Your task to perform on an android device: turn notification dots off Image 0: 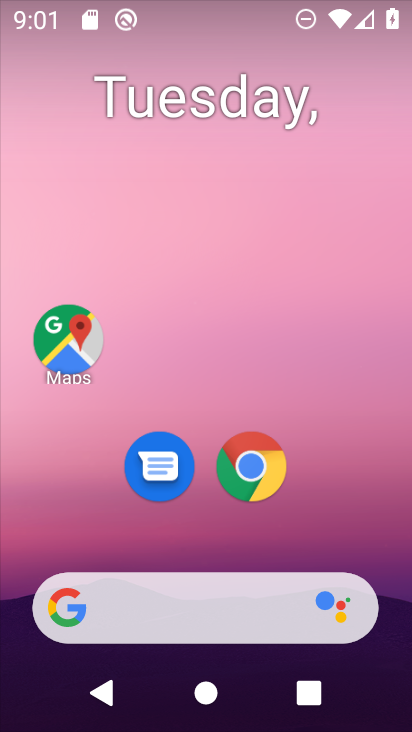
Step 0: drag from (198, 550) to (247, 61)
Your task to perform on an android device: turn notification dots off Image 1: 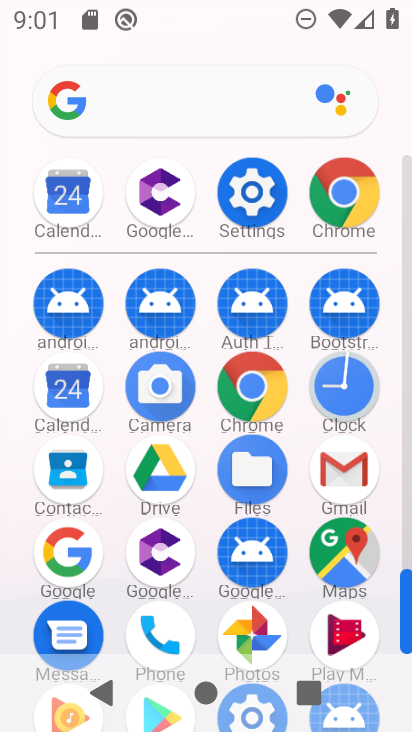
Step 1: click (257, 194)
Your task to perform on an android device: turn notification dots off Image 2: 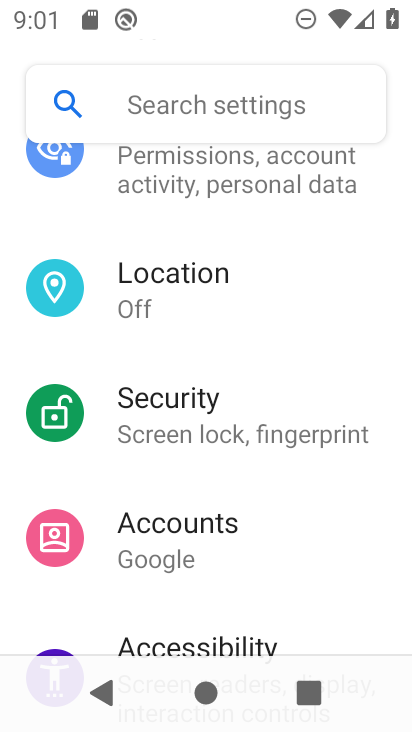
Step 2: drag from (238, 231) to (213, 681)
Your task to perform on an android device: turn notification dots off Image 3: 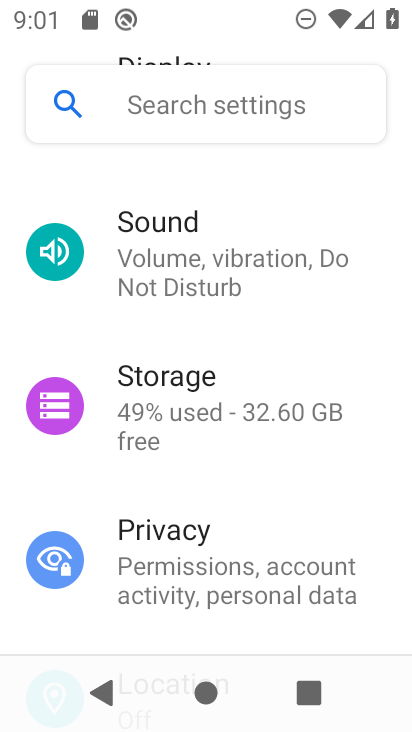
Step 3: drag from (258, 279) to (222, 575)
Your task to perform on an android device: turn notification dots off Image 4: 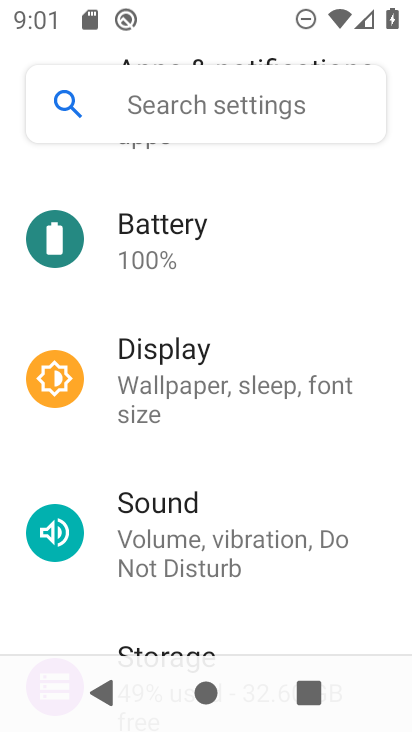
Step 4: drag from (243, 239) to (205, 660)
Your task to perform on an android device: turn notification dots off Image 5: 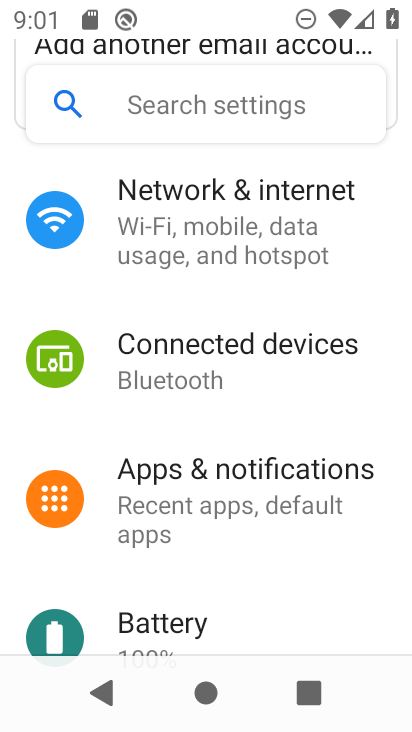
Step 5: click (236, 499)
Your task to perform on an android device: turn notification dots off Image 6: 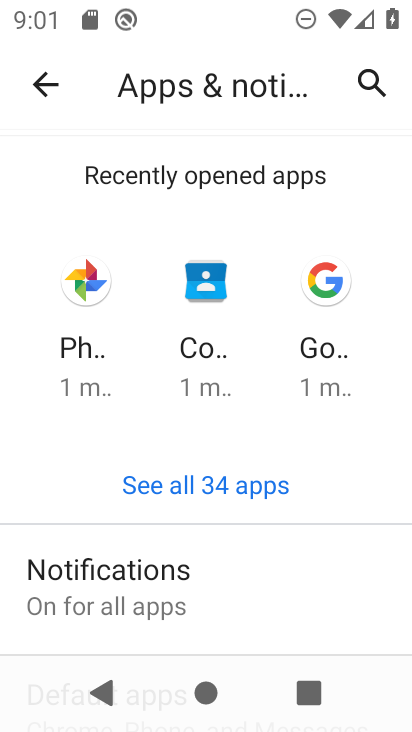
Step 6: drag from (192, 565) to (237, 345)
Your task to perform on an android device: turn notification dots off Image 7: 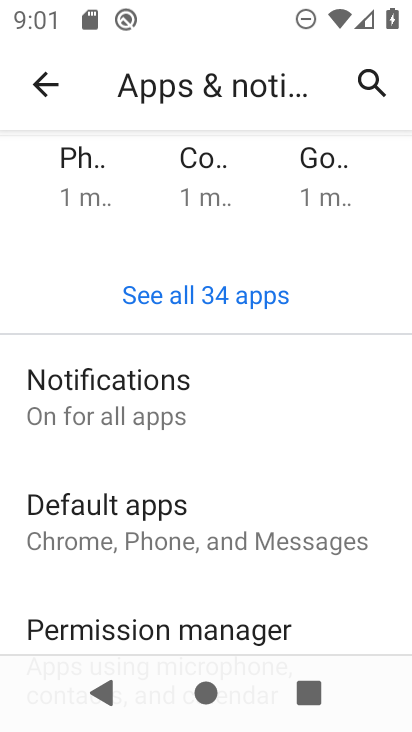
Step 7: click (154, 417)
Your task to perform on an android device: turn notification dots off Image 8: 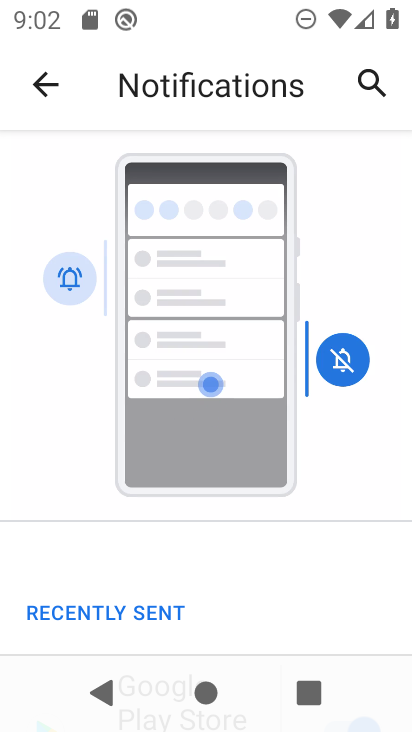
Step 8: drag from (249, 603) to (324, 112)
Your task to perform on an android device: turn notification dots off Image 9: 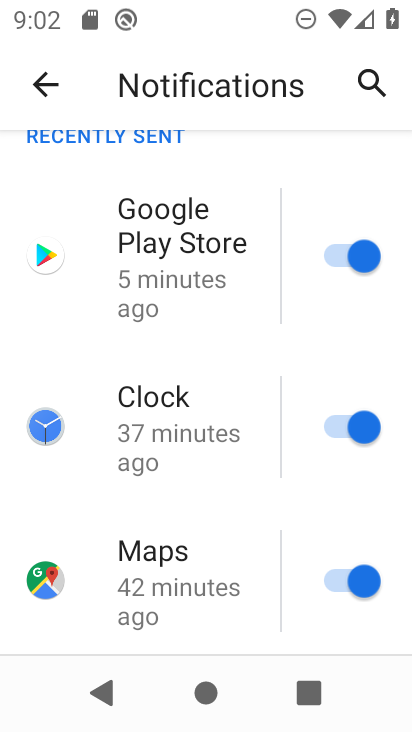
Step 9: drag from (157, 556) to (237, 199)
Your task to perform on an android device: turn notification dots off Image 10: 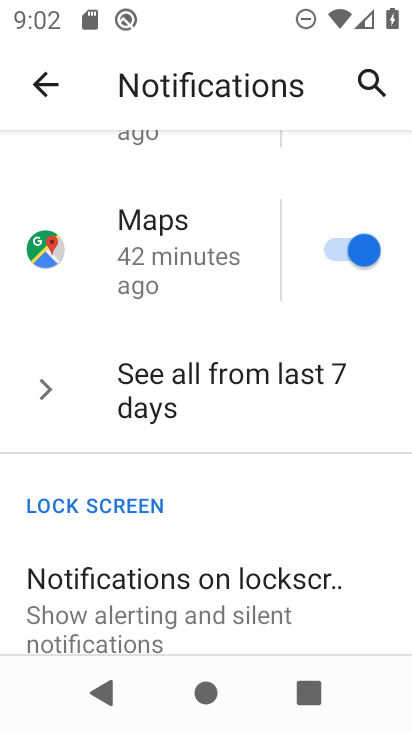
Step 10: drag from (202, 591) to (250, 279)
Your task to perform on an android device: turn notification dots off Image 11: 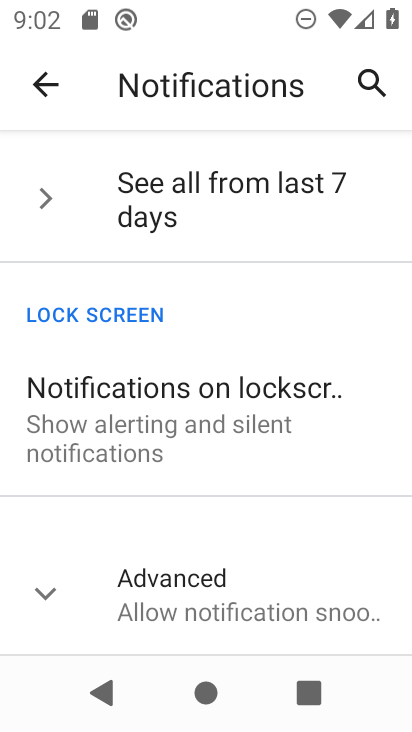
Step 11: click (178, 604)
Your task to perform on an android device: turn notification dots off Image 12: 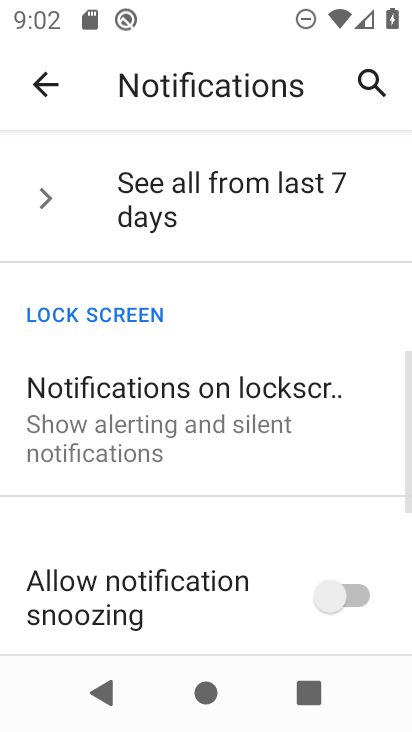
Step 12: drag from (176, 592) to (246, 198)
Your task to perform on an android device: turn notification dots off Image 13: 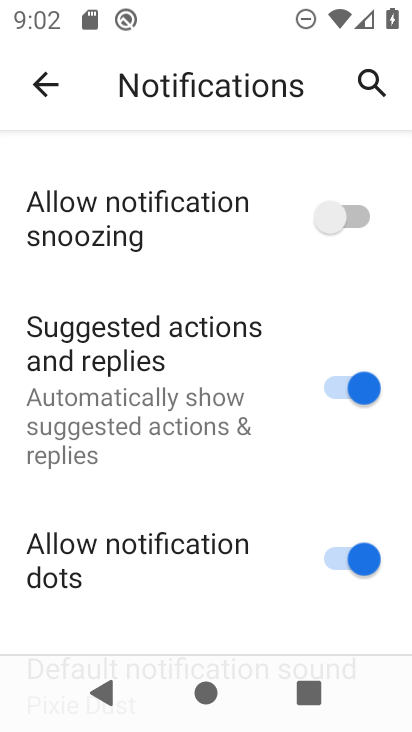
Step 13: click (329, 551)
Your task to perform on an android device: turn notification dots off Image 14: 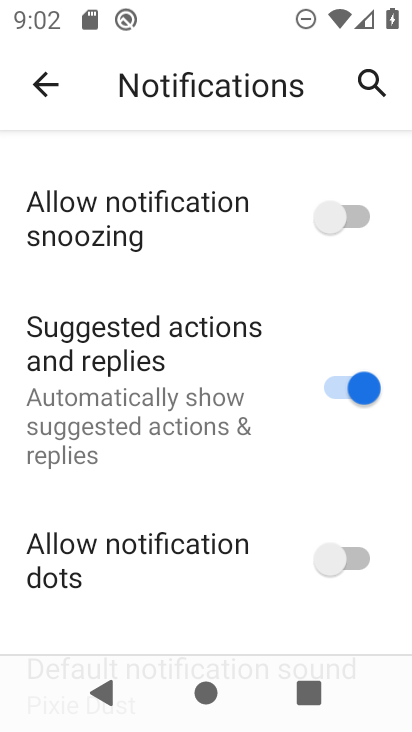
Step 14: task complete